Your task to perform on an android device: open a new tab in the chrome app Image 0: 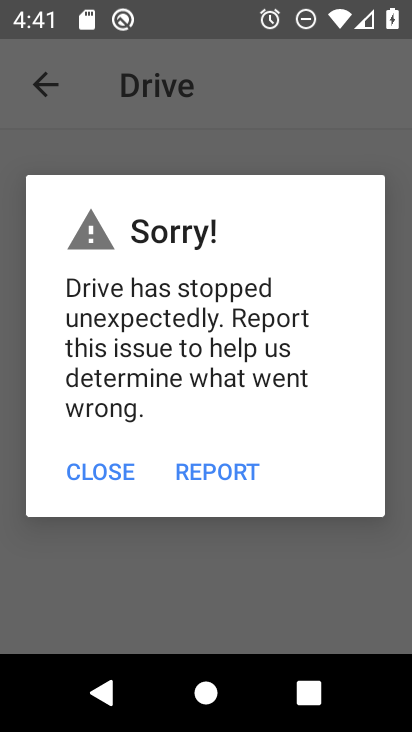
Step 0: press home button
Your task to perform on an android device: open a new tab in the chrome app Image 1: 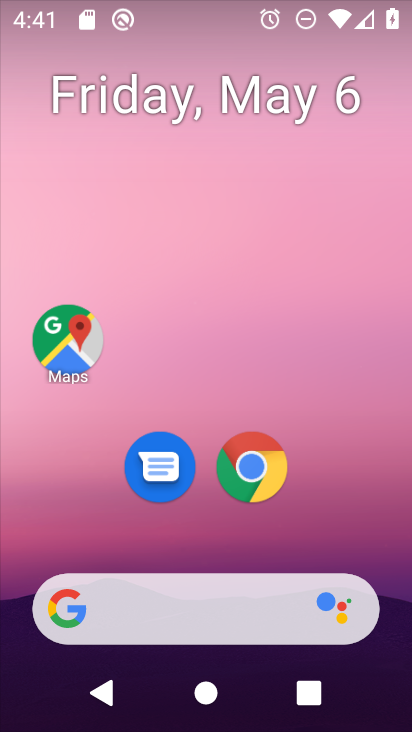
Step 1: click (282, 478)
Your task to perform on an android device: open a new tab in the chrome app Image 2: 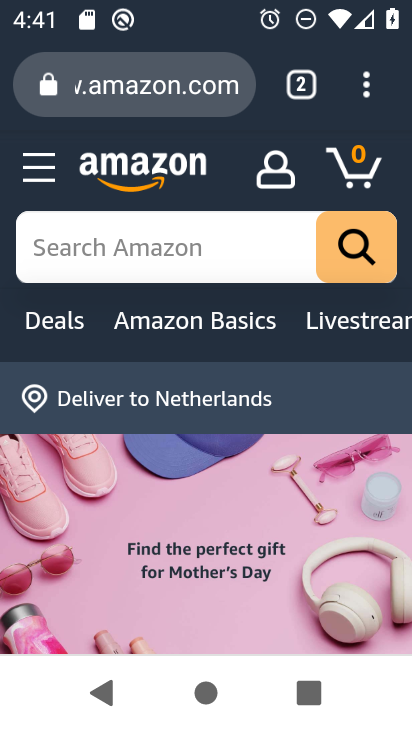
Step 2: click (313, 99)
Your task to perform on an android device: open a new tab in the chrome app Image 3: 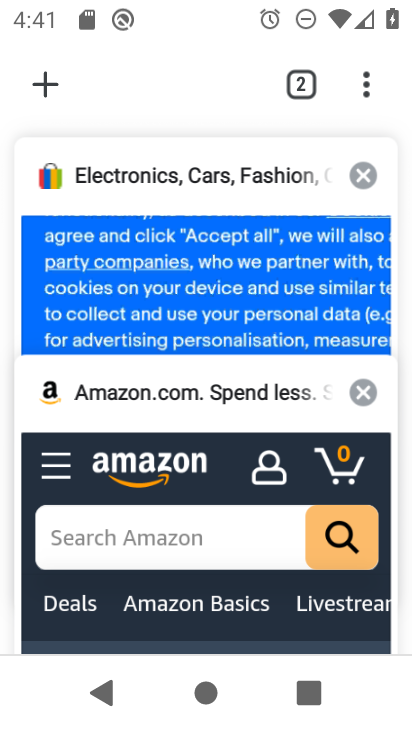
Step 3: click (41, 85)
Your task to perform on an android device: open a new tab in the chrome app Image 4: 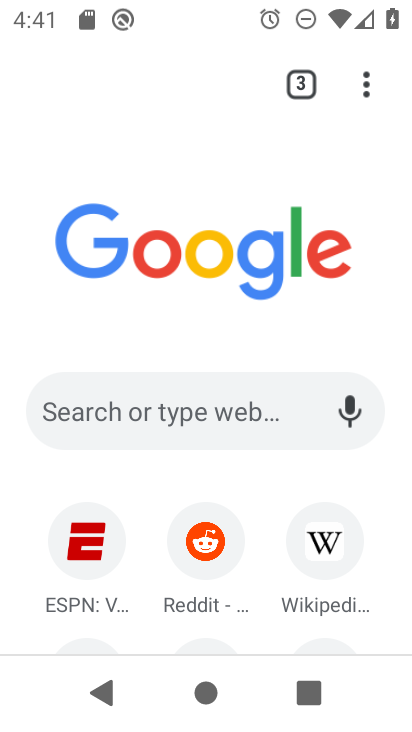
Step 4: task complete